Your task to perform on an android device: open a new tab in the chrome app Image 0: 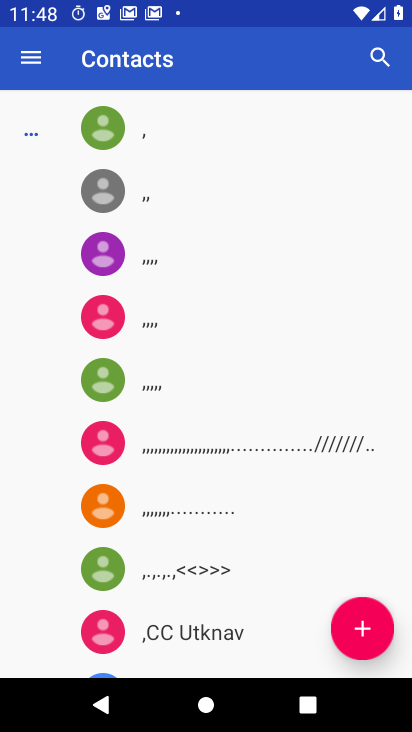
Step 0: press home button
Your task to perform on an android device: open a new tab in the chrome app Image 1: 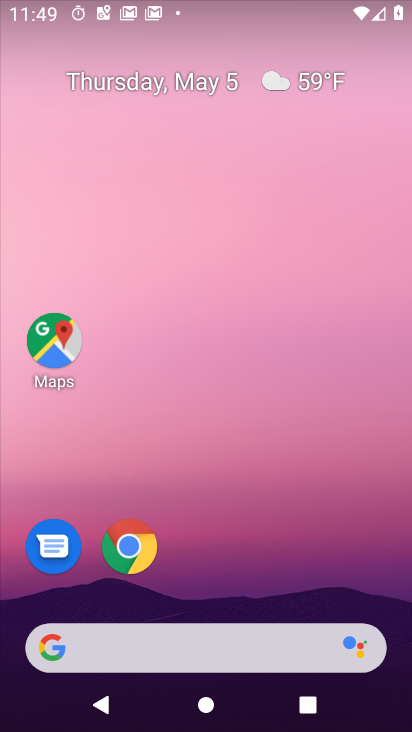
Step 1: click (139, 549)
Your task to perform on an android device: open a new tab in the chrome app Image 2: 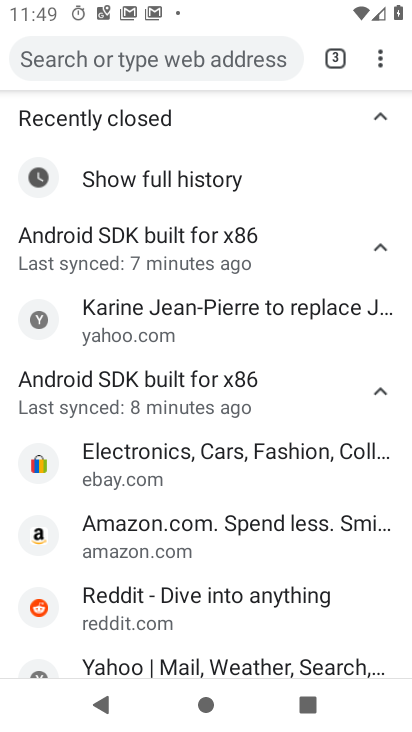
Step 2: click (336, 59)
Your task to perform on an android device: open a new tab in the chrome app Image 3: 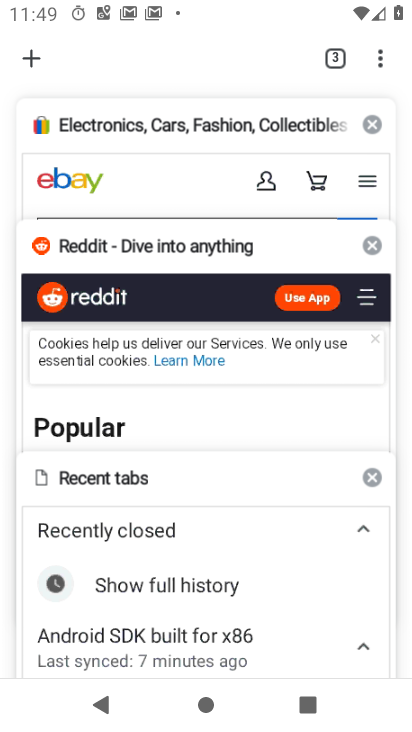
Step 3: click (34, 55)
Your task to perform on an android device: open a new tab in the chrome app Image 4: 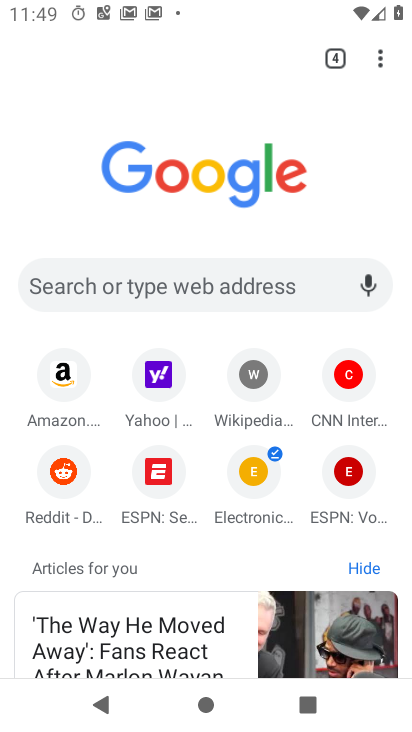
Step 4: task complete